Your task to perform on an android device: choose inbox layout in the gmail app Image 0: 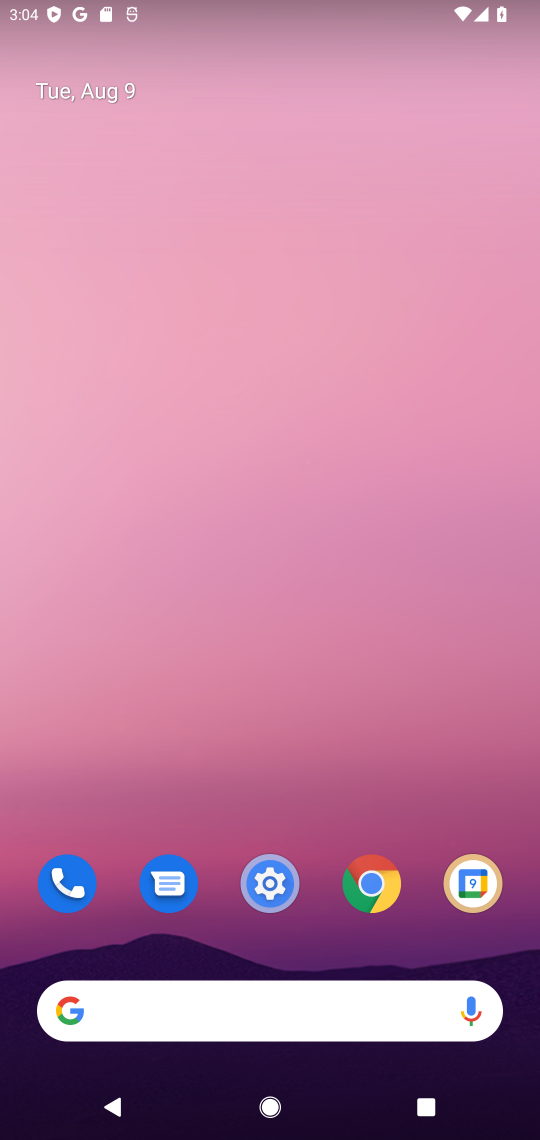
Step 0: drag from (415, 958) to (420, 134)
Your task to perform on an android device: choose inbox layout in the gmail app Image 1: 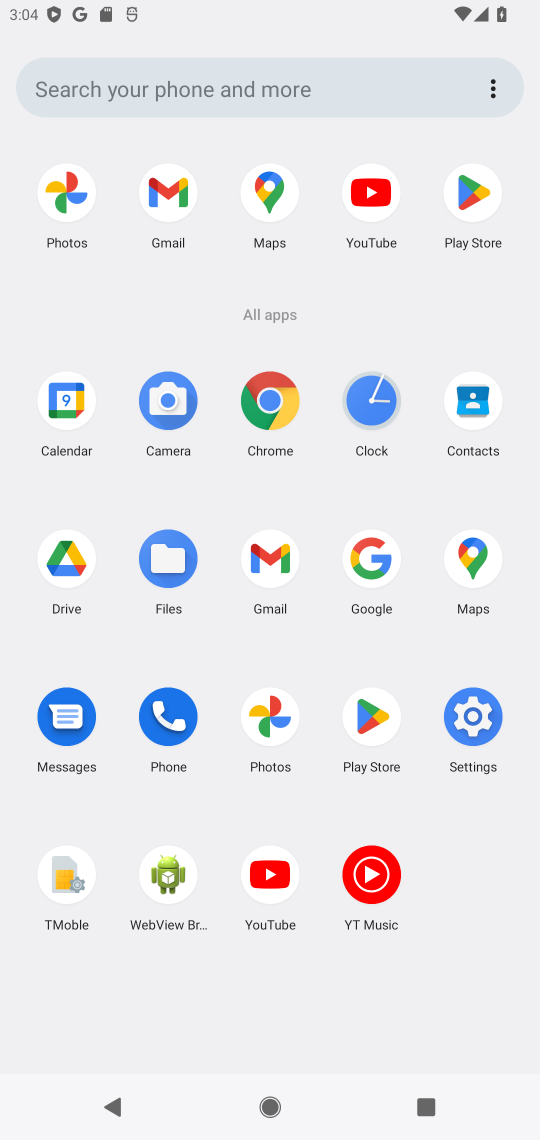
Step 1: click (266, 556)
Your task to perform on an android device: choose inbox layout in the gmail app Image 2: 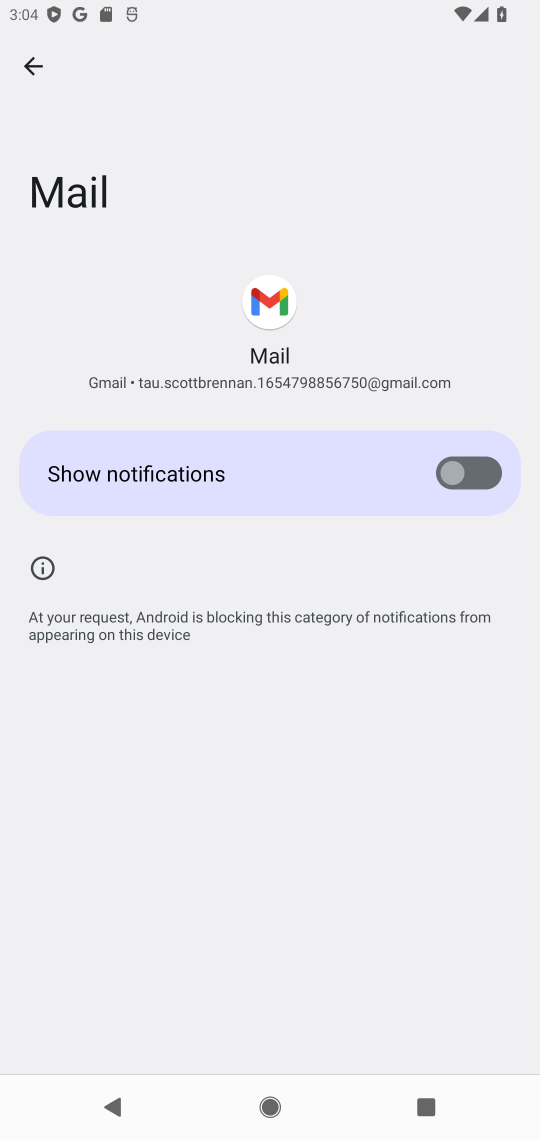
Step 2: press back button
Your task to perform on an android device: choose inbox layout in the gmail app Image 3: 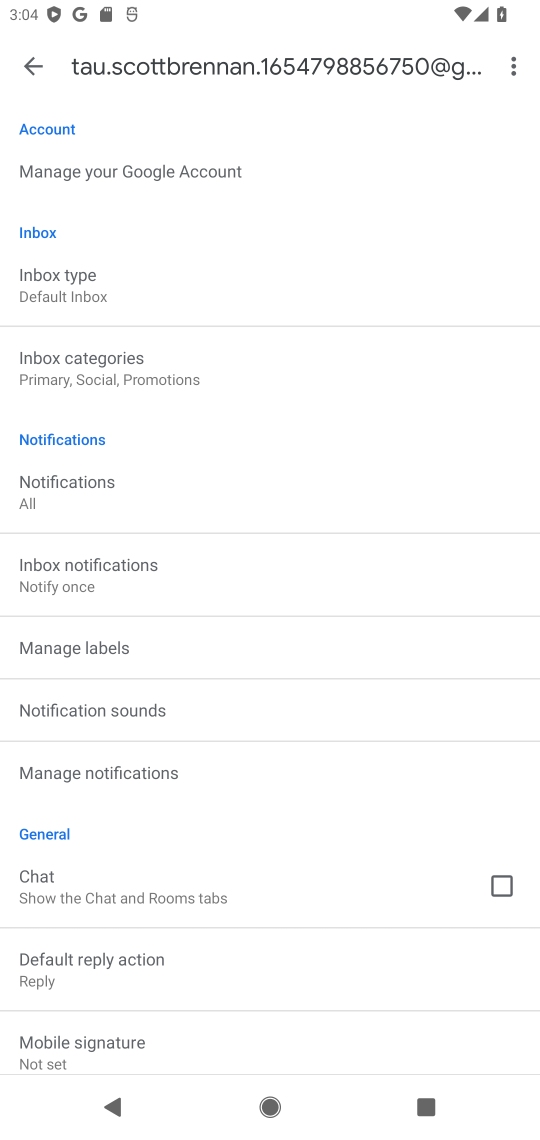
Step 3: click (52, 284)
Your task to perform on an android device: choose inbox layout in the gmail app Image 4: 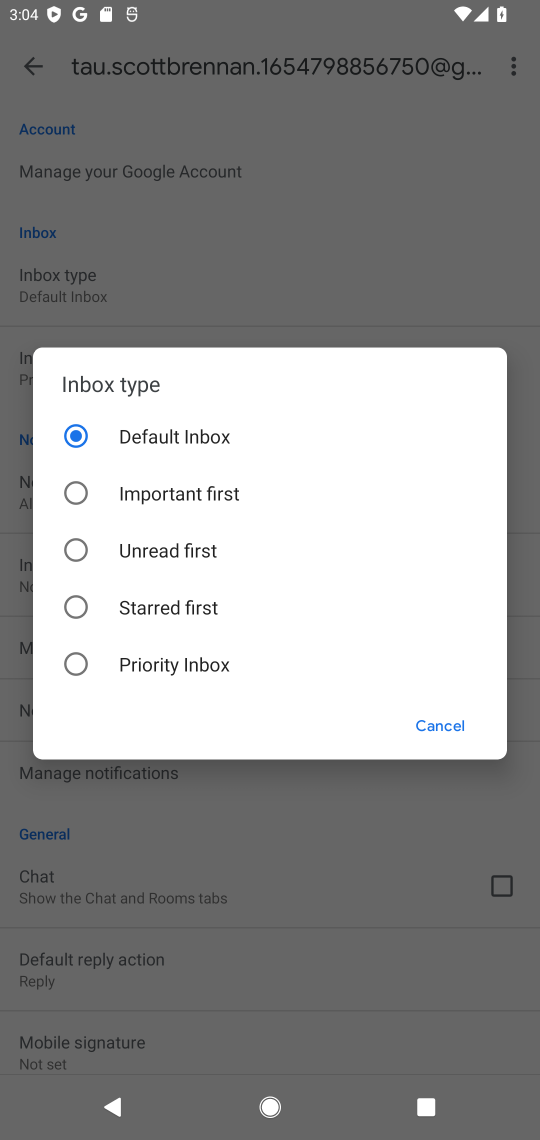
Step 4: click (72, 492)
Your task to perform on an android device: choose inbox layout in the gmail app Image 5: 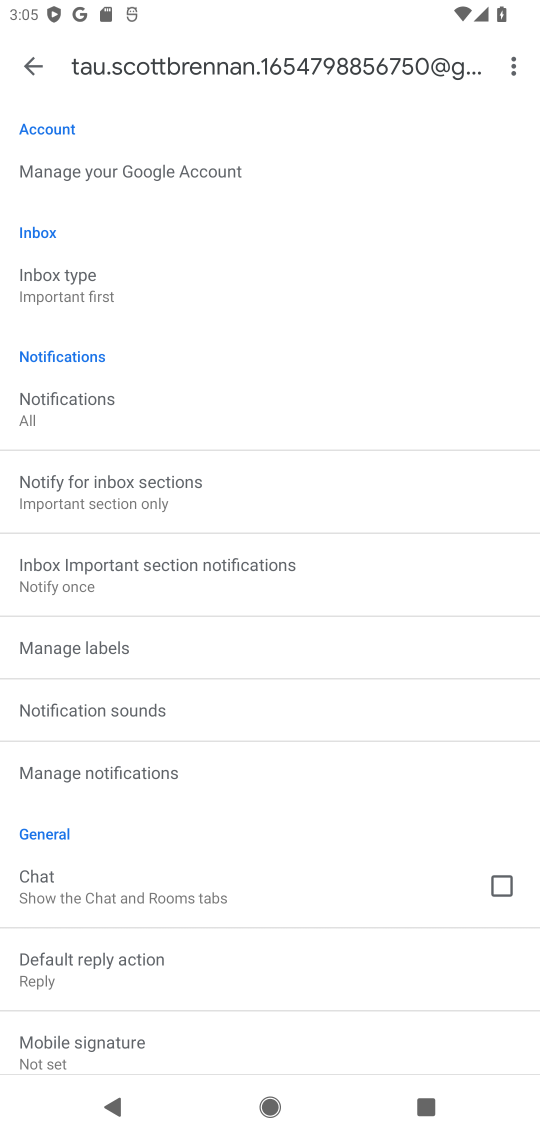
Step 5: task complete